Your task to perform on an android device: Open Google Maps and go to "Timeline" Image 0: 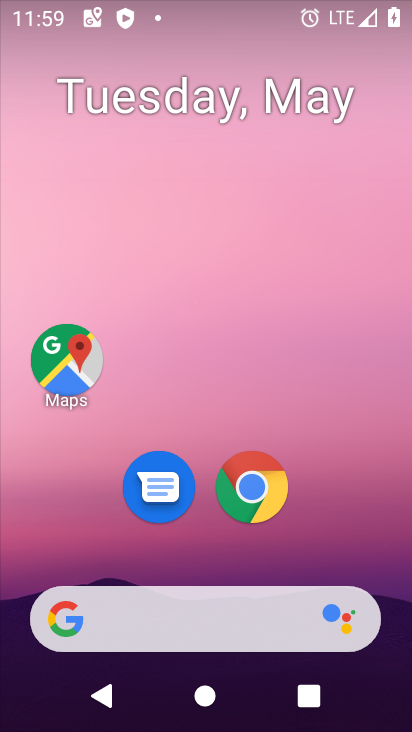
Step 0: drag from (204, 539) to (218, 279)
Your task to perform on an android device: Open Google Maps and go to "Timeline" Image 1: 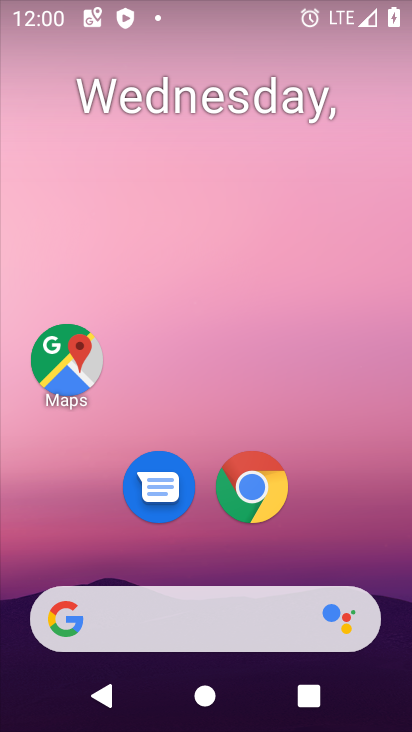
Step 1: drag from (196, 523) to (275, 71)
Your task to perform on an android device: Open Google Maps and go to "Timeline" Image 2: 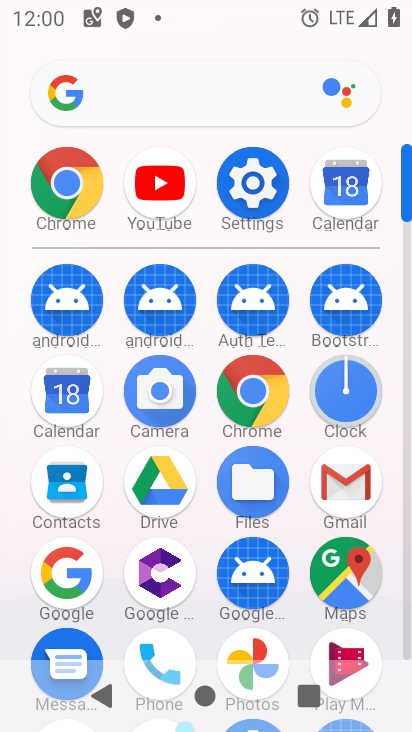
Step 2: click (341, 560)
Your task to perform on an android device: Open Google Maps and go to "Timeline" Image 3: 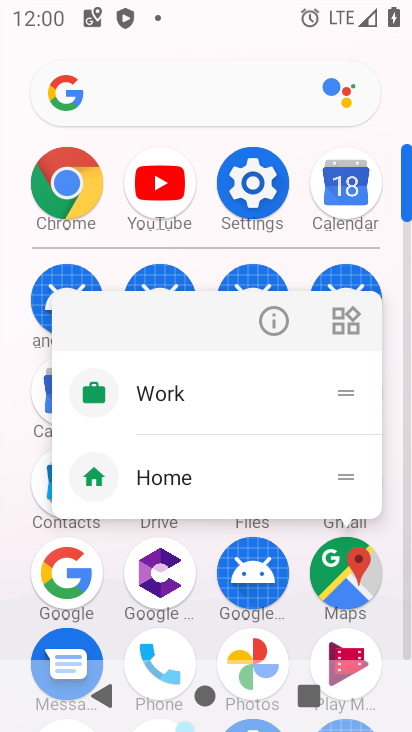
Step 3: click (290, 305)
Your task to perform on an android device: Open Google Maps and go to "Timeline" Image 4: 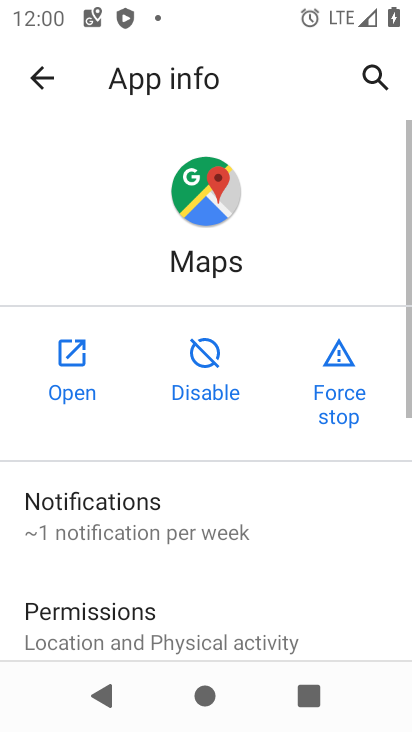
Step 4: click (66, 347)
Your task to perform on an android device: Open Google Maps and go to "Timeline" Image 5: 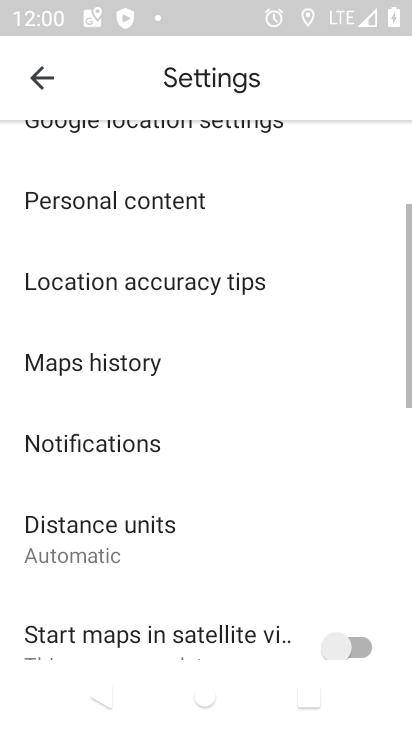
Step 5: drag from (205, 202) to (293, 717)
Your task to perform on an android device: Open Google Maps and go to "Timeline" Image 6: 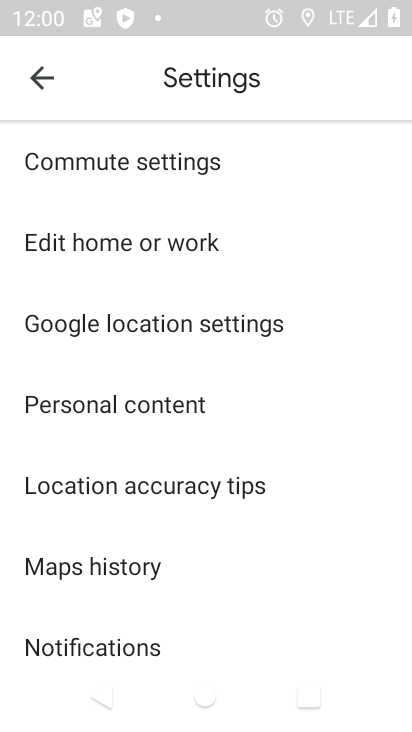
Step 6: click (49, 80)
Your task to perform on an android device: Open Google Maps and go to "Timeline" Image 7: 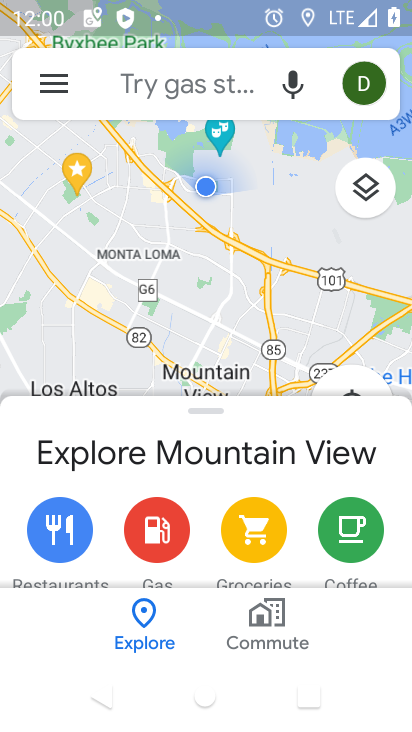
Step 7: click (49, 80)
Your task to perform on an android device: Open Google Maps and go to "Timeline" Image 8: 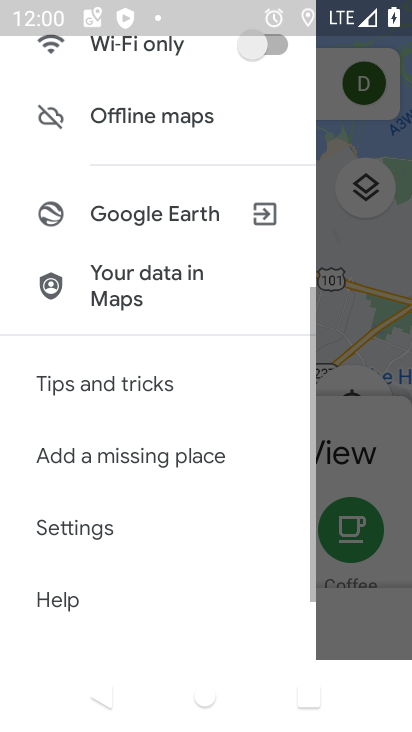
Step 8: drag from (165, 106) to (234, 719)
Your task to perform on an android device: Open Google Maps and go to "Timeline" Image 9: 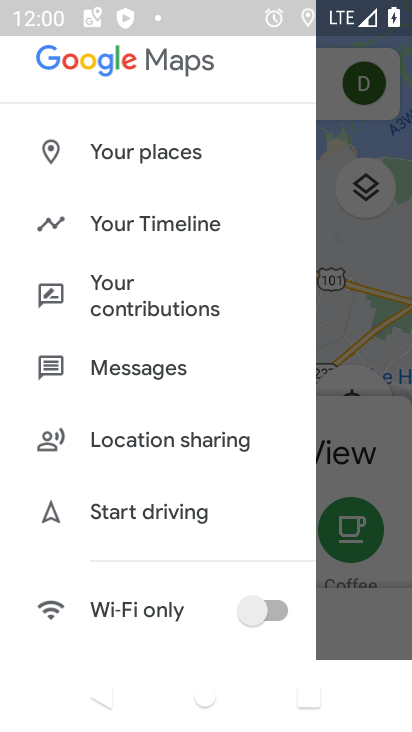
Step 9: click (134, 231)
Your task to perform on an android device: Open Google Maps and go to "Timeline" Image 10: 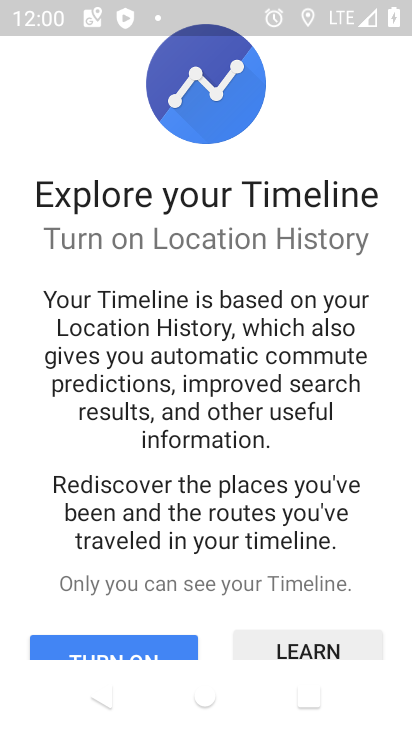
Step 10: click (122, 642)
Your task to perform on an android device: Open Google Maps and go to "Timeline" Image 11: 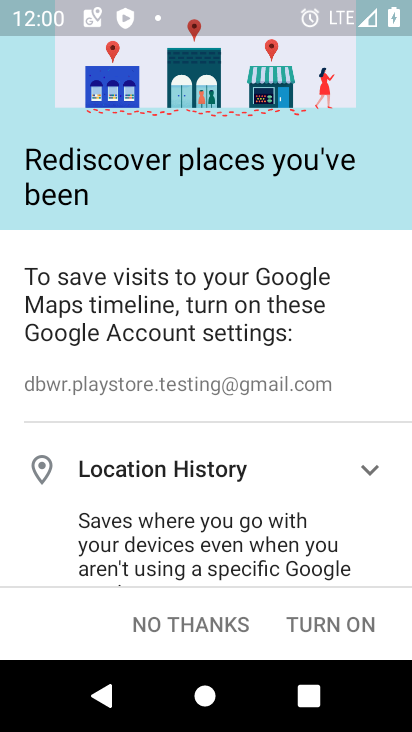
Step 11: click (327, 622)
Your task to perform on an android device: Open Google Maps and go to "Timeline" Image 12: 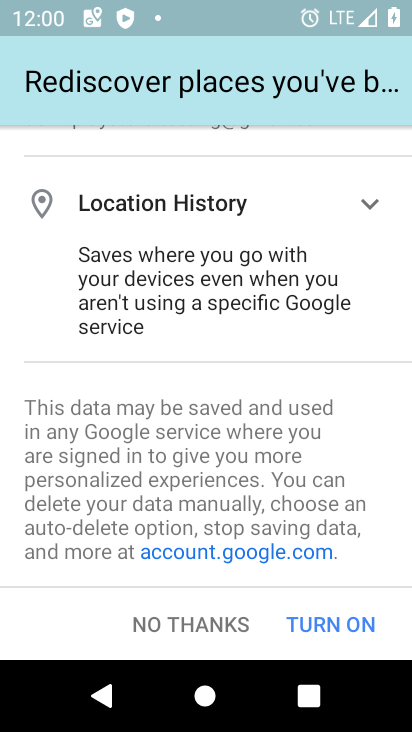
Step 12: click (296, 621)
Your task to perform on an android device: Open Google Maps and go to "Timeline" Image 13: 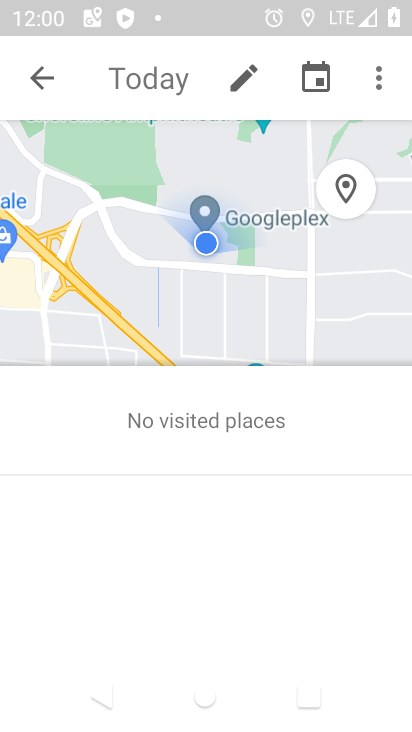
Step 13: task complete